Your task to perform on an android device: What's the weather today? Image 0: 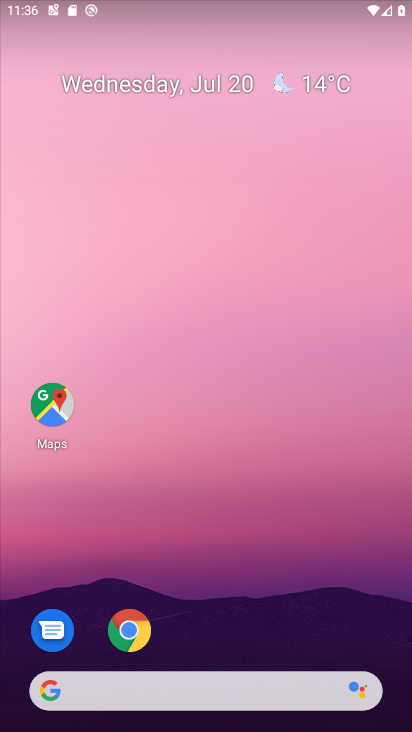
Step 0: click (297, 658)
Your task to perform on an android device: What's the weather today? Image 1: 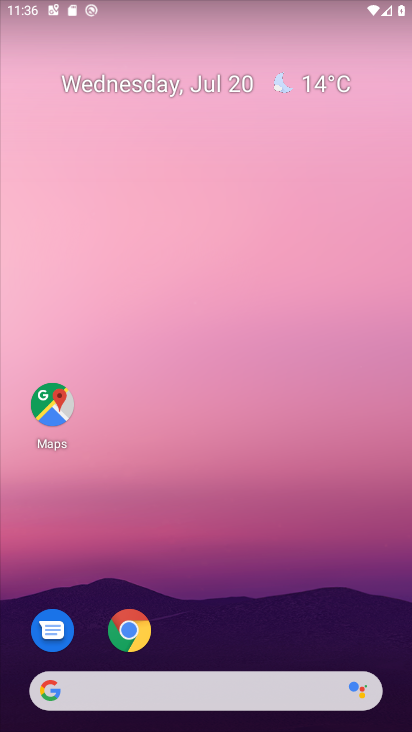
Step 1: click (288, 676)
Your task to perform on an android device: What's the weather today? Image 2: 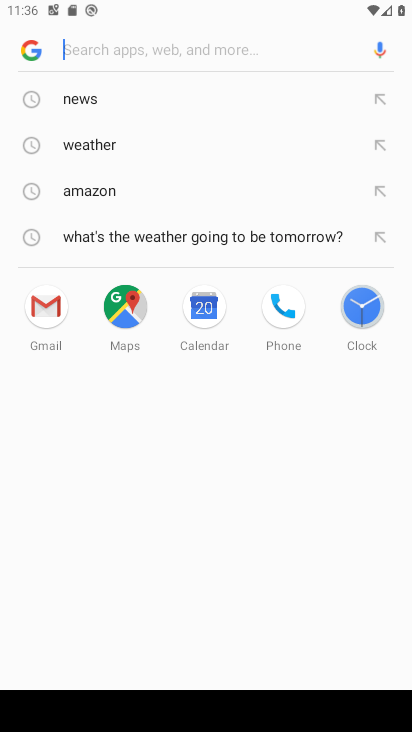
Step 2: click (95, 147)
Your task to perform on an android device: What's the weather today? Image 3: 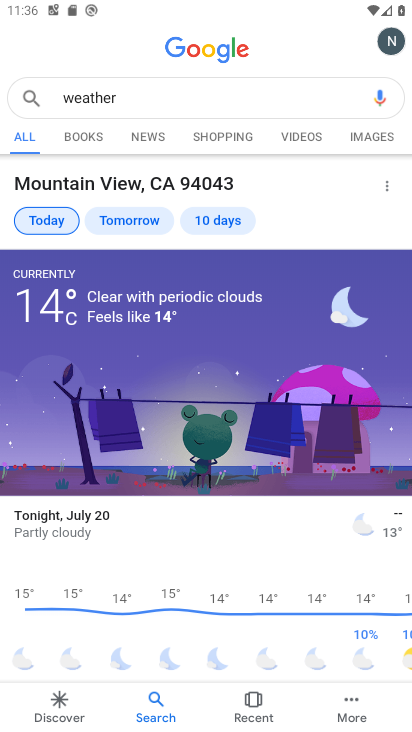
Step 3: click (62, 212)
Your task to perform on an android device: What's the weather today? Image 4: 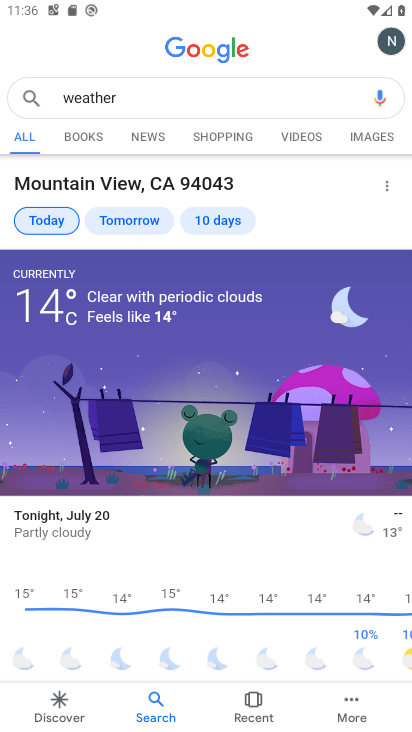
Step 4: task complete